Your task to perform on an android device: Open battery settings Image 0: 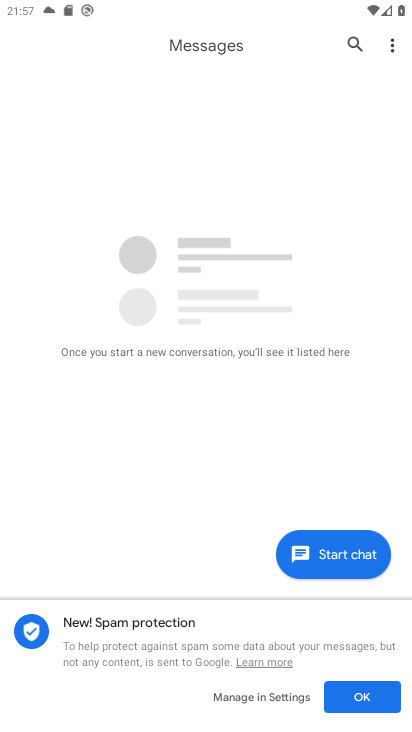
Step 0: press home button
Your task to perform on an android device: Open battery settings Image 1: 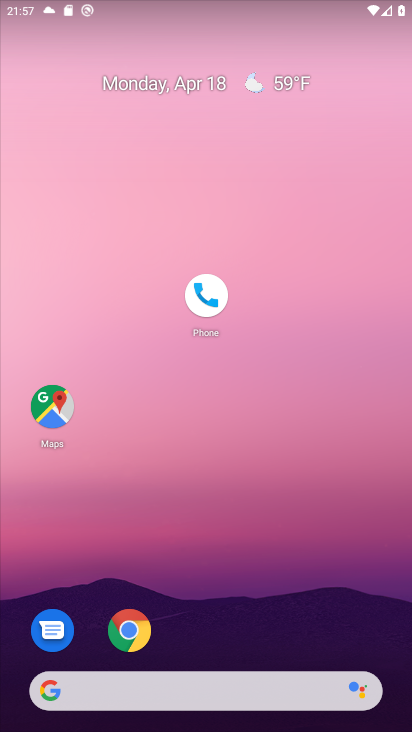
Step 1: drag from (248, 609) to (301, 124)
Your task to perform on an android device: Open battery settings Image 2: 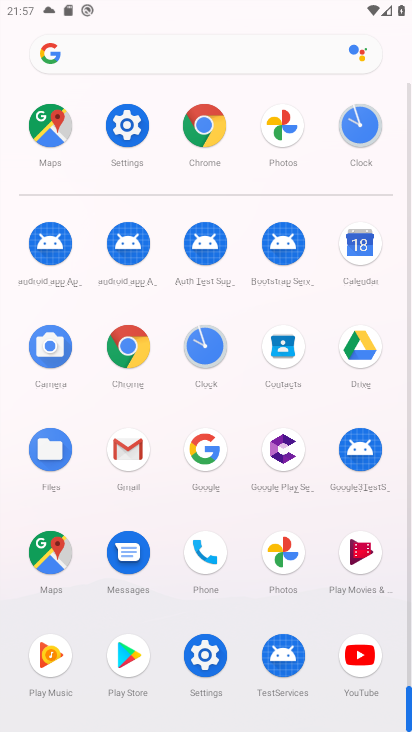
Step 2: click (137, 131)
Your task to perform on an android device: Open battery settings Image 3: 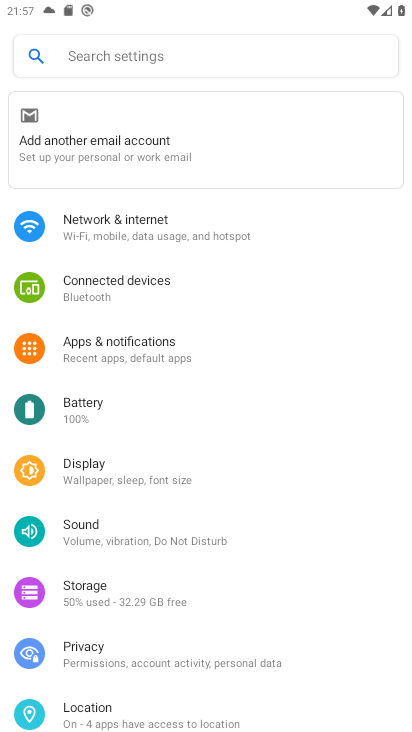
Step 3: click (101, 412)
Your task to perform on an android device: Open battery settings Image 4: 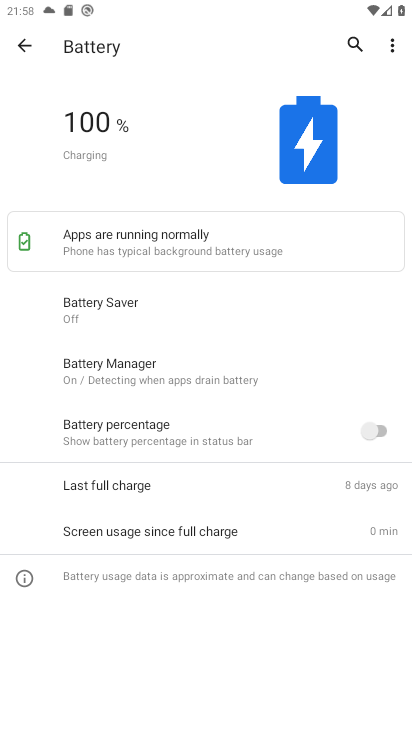
Step 4: task complete